Your task to perform on an android device: Open Google Chrome Image 0: 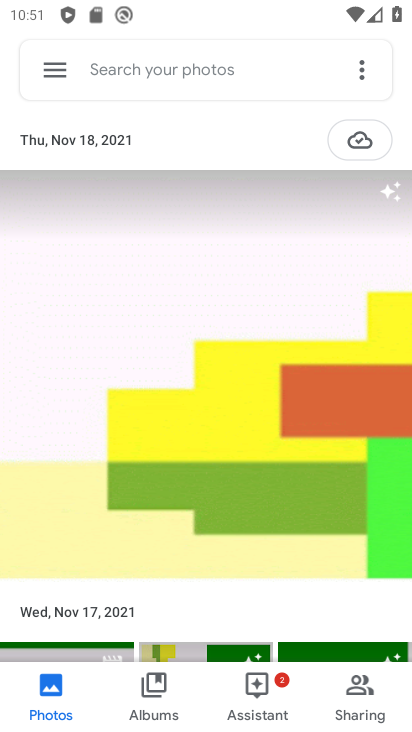
Step 0: press home button
Your task to perform on an android device: Open Google Chrome Image 1: 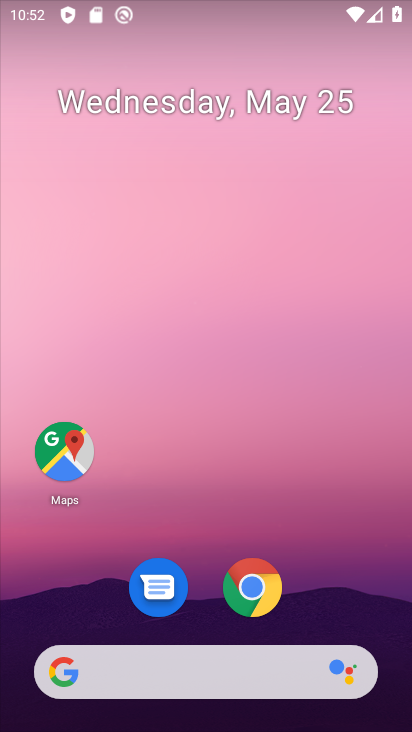
Step 1: drag from (316, 473) to (235, 53)
Your task to perform on an android device: Open Google Chrome Image 2: 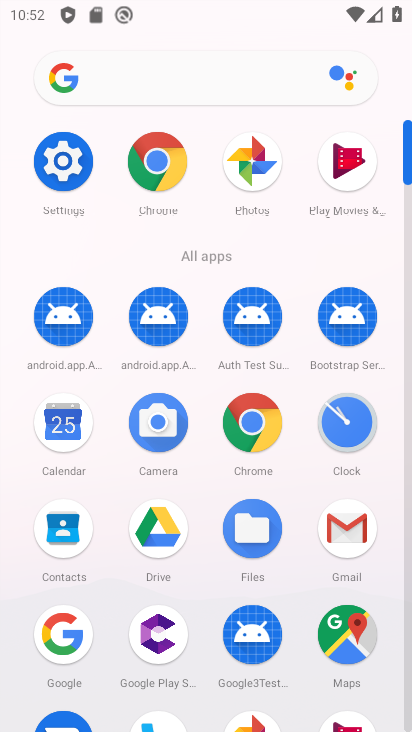
Step 2: click (159, 156)
Your task to perform on an android device: Open Google Chrome Image 3: 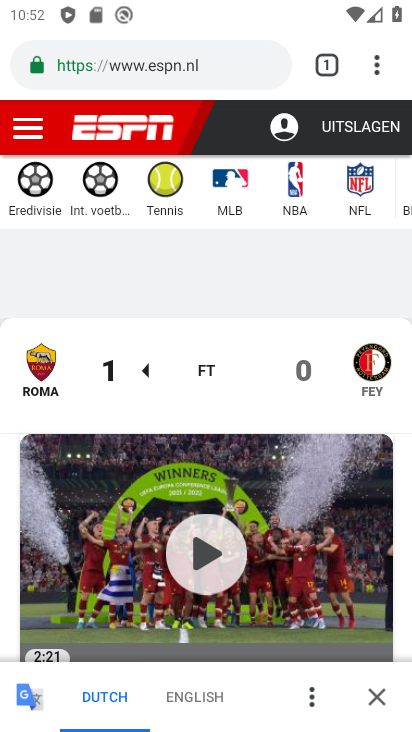
Step 3: click (171, 53)
Your task to perform on an android device: Open Google Chrome Image 4: 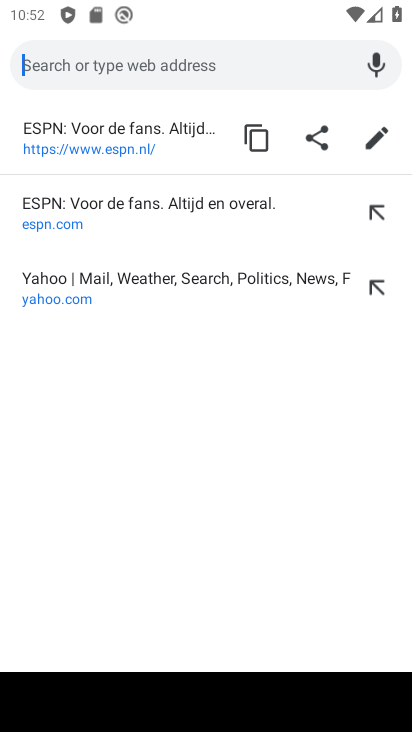
Step 4: task complete